Your task to perform on an android device: turn off wifi Image 0: 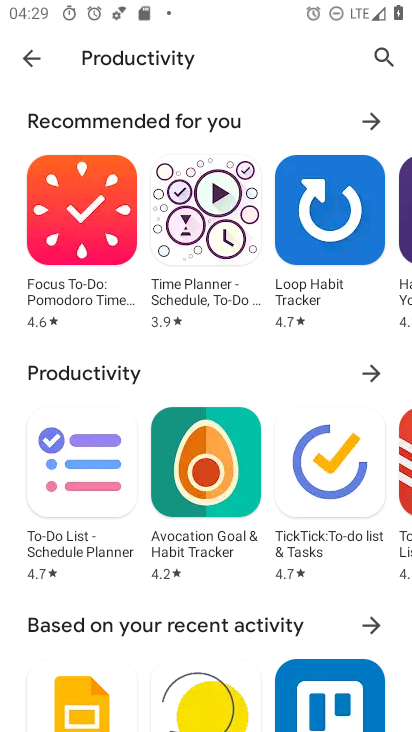
Step 0: press home button
Your task to perform on an android device: turn off wifi Image 1: 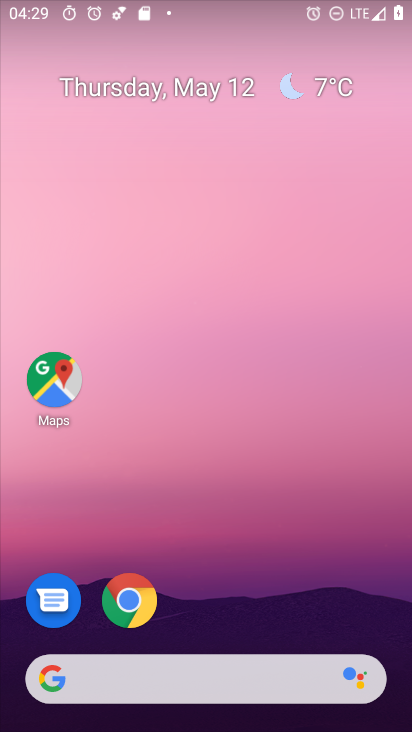
Step 1: drag from (217, 726) to (226, 113)
Your task to perform on an android device: turn off wifi Image 2: 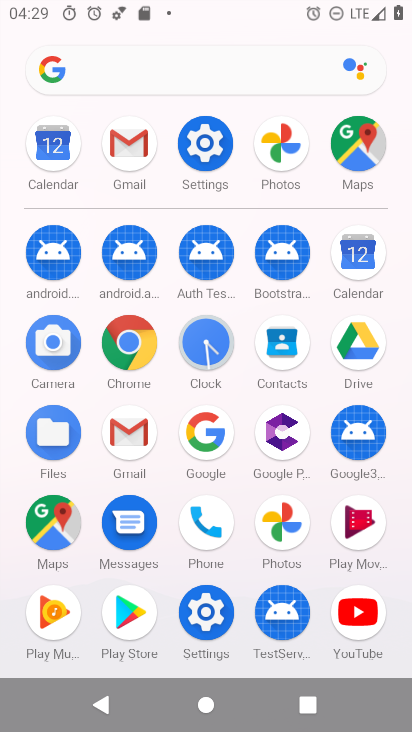
Step 2: click (199, 137)
Your task to perform on an android device: turn off wifi Image 3: 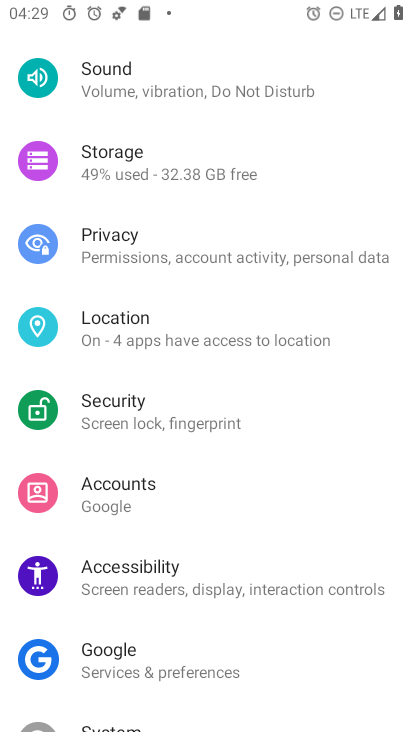
Step 3: drag from (276, 151) to (275, 595)
Your task to perform on an android device: turn off wifi Image 4: 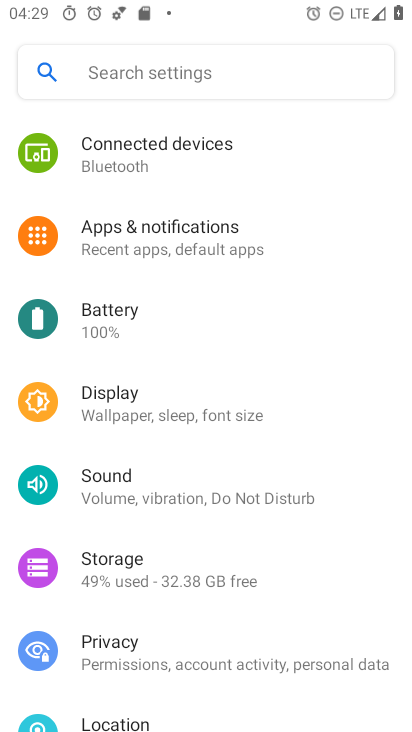
Step 4: drag from (272, 147) to (268, 587)
Your task to perform on an android device: turn off wifi Image 5: 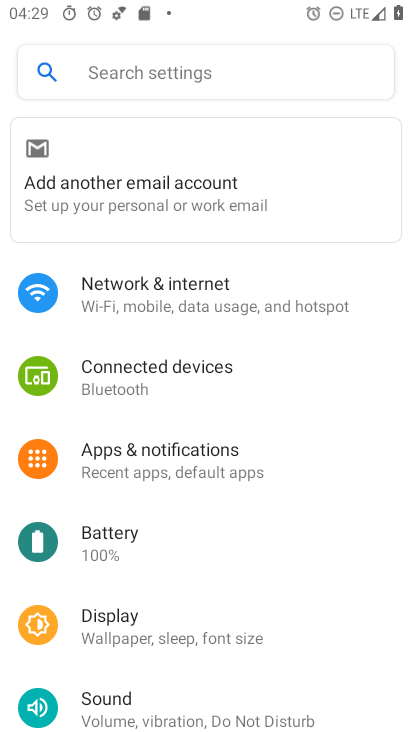
Step 5: click (139, 296)
Your task to perform on an android device: turn off wifi Image 6: 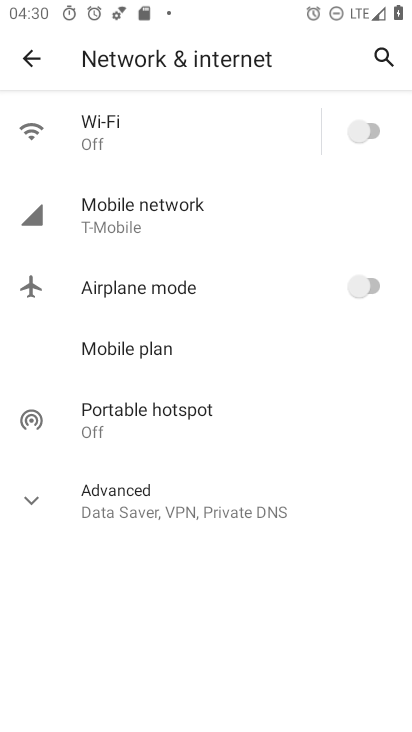
Step 6: task complete